Your task to perform on an android device: move an email to a new category in the gmail app Image 0: 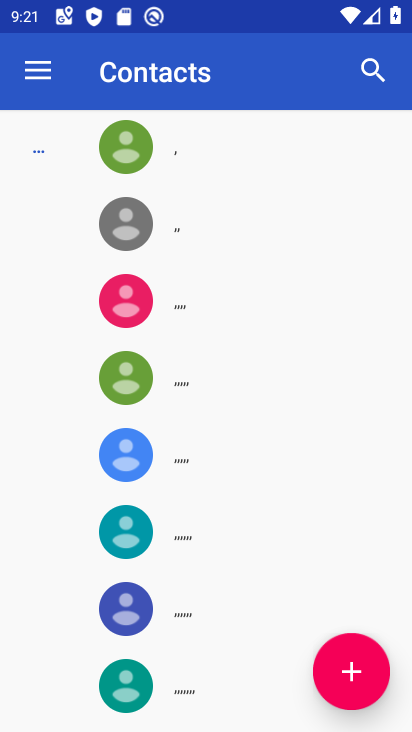
Step 0: press home button
Your task to perform on an android device: move an email to a new category in the gmail app Image 1: 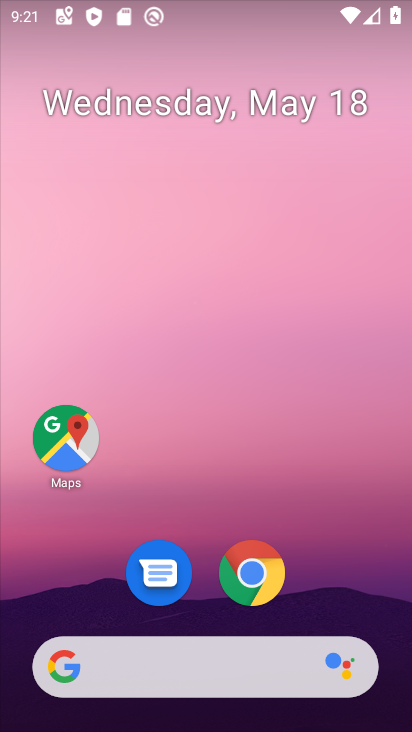
Step 1: drag from (216, 731) to (276, 114)
Your task to perform on an android device: move an email to a new category in the gmail app Image 2: 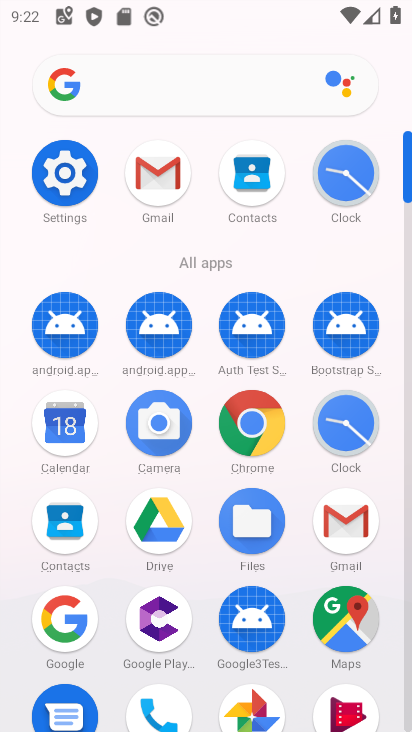
Step 2: click (156, 188)
Your task to perform on an android device: move an email to a new category in the gmail app Image 3: 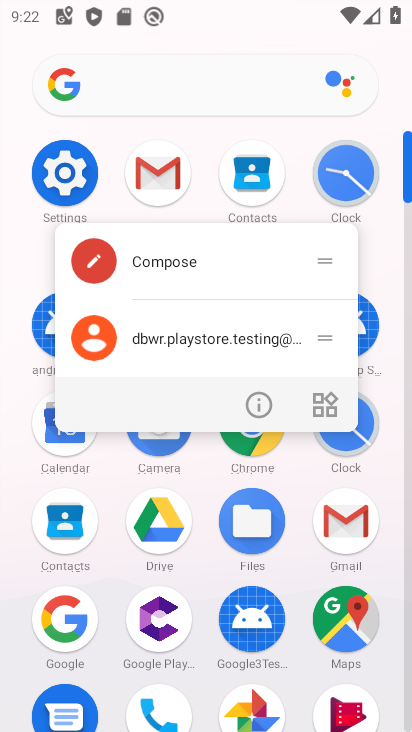
Step 3: click (156, 188)
Your task to perform on an android device: move an email to a new category in the gmail app Image 4: 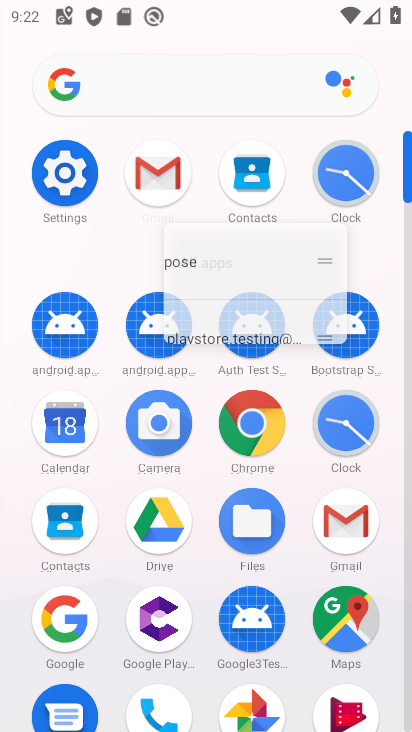
Step 4: click (156, 188)
Your task to perform on an android device: move an email to a new category in the gmail app Image 5: 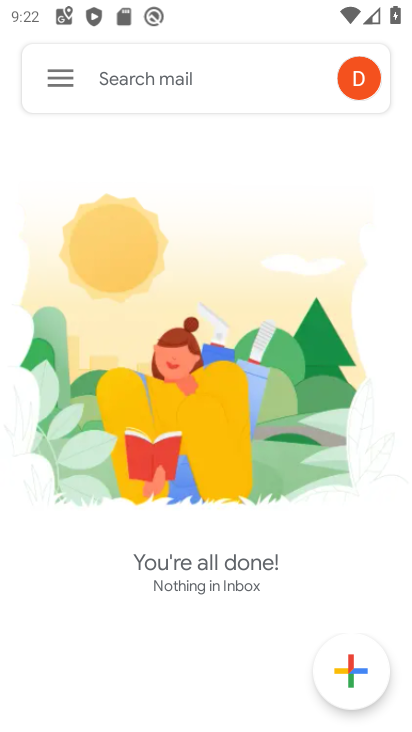
Step 5: click (64, 75)
Your task to perform on an android device: move an email to a new category in the gmail app Image 6: 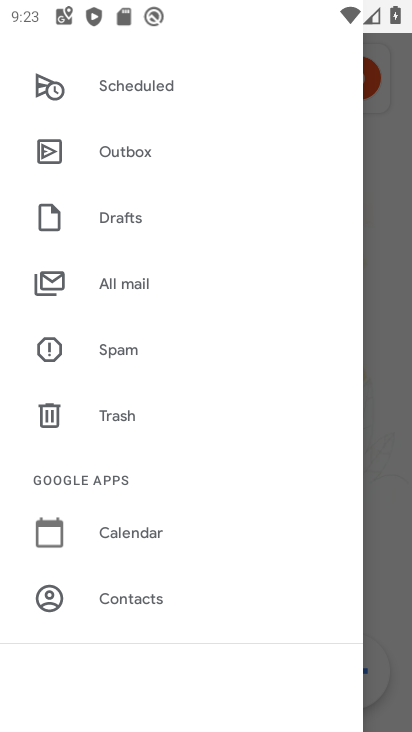
Step 6: click (135, 285)
Your task to perform on an android device: move an email to a new category in the gmail app Image 7: 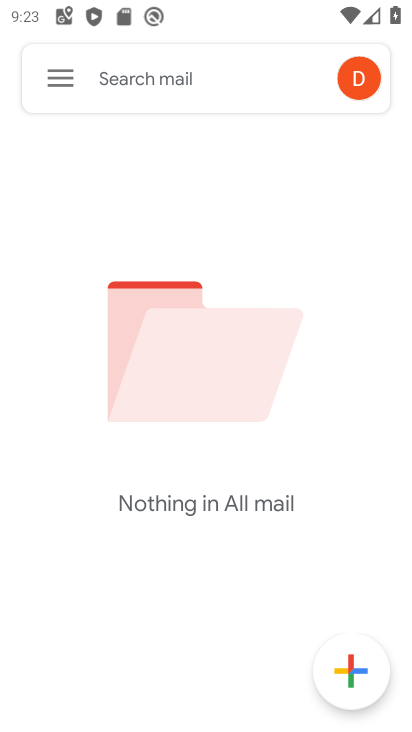
Step 7: task complete